Your task to perform on an android device: Search for Mexican restaurants on Maps Image 0: 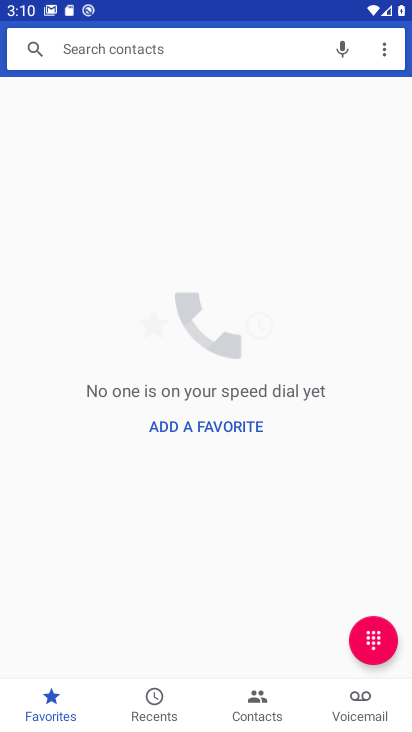
Step 0: press home button
Your task to perform on an android device: Search for Mexican restaurants on Maps Image 1: 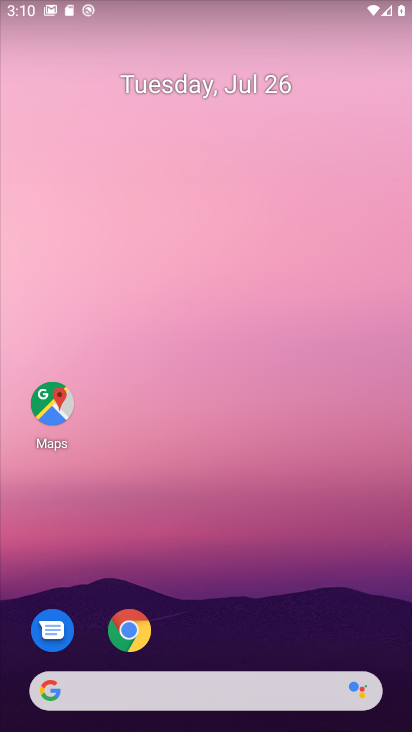
Step 1: click (123, 632)
Your task to perform on an android device: Search for Mexican restaurants on Maps Image 2: 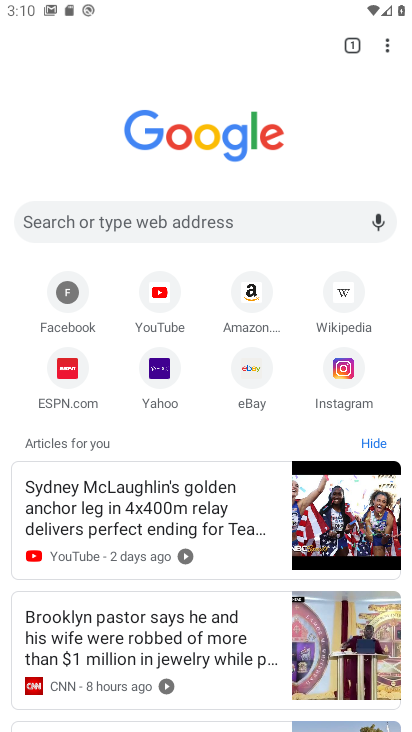
Step 2: press home button
Your task to perform on an android device: Search for Mexican restaurants on Maps Image 3: 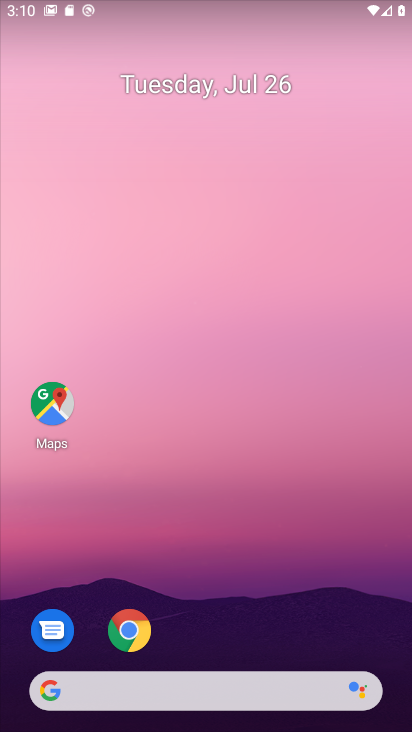
Step 3: click (55, 402)
Your task to perform on an android device: Search for Mexican restaurants on Maps Image 4: 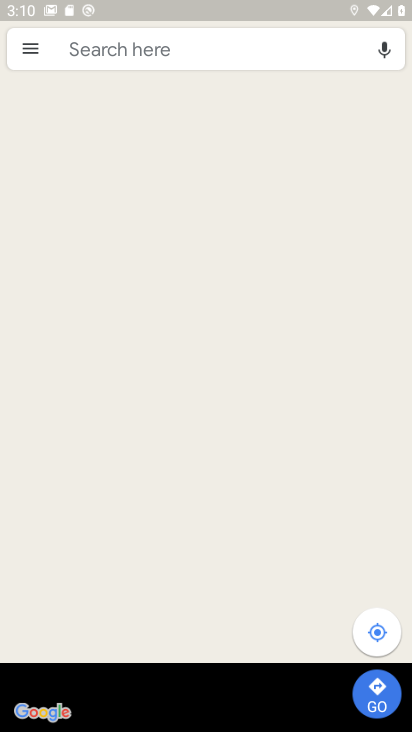
Step 4: click (190, 39)
Your task to perform on an android device: Search for Mexican restaurants on Maps Image 5: 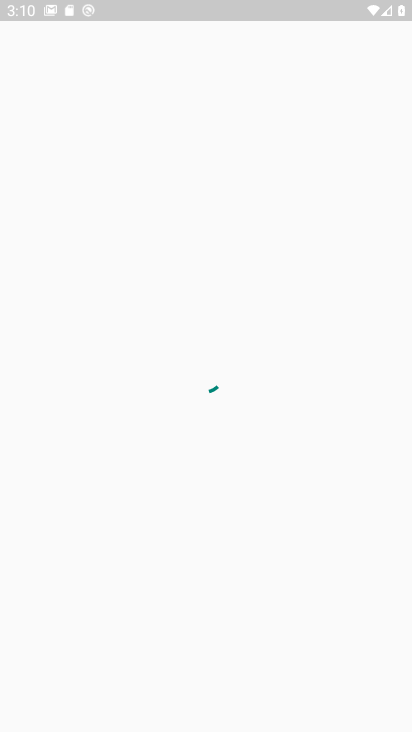
Step 5: type "mexican restaurant"
Your task to perform on an android device: Search for Mexican restaurants on Maps Image 6: 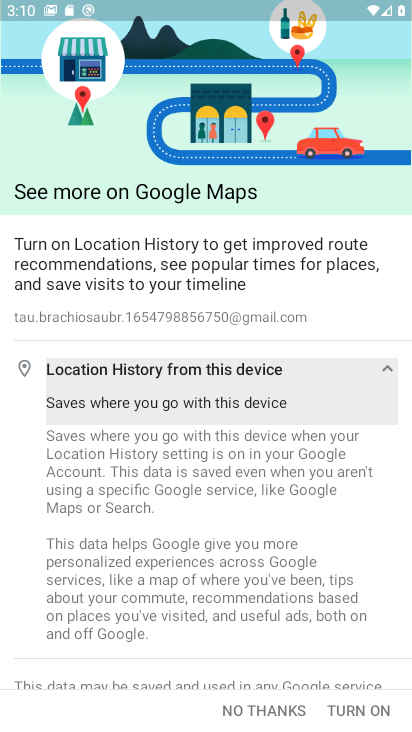
Step 6: click (381, 716)
Your task to perform on an android device: Search for Mexican restaurants on Maps Image 7: 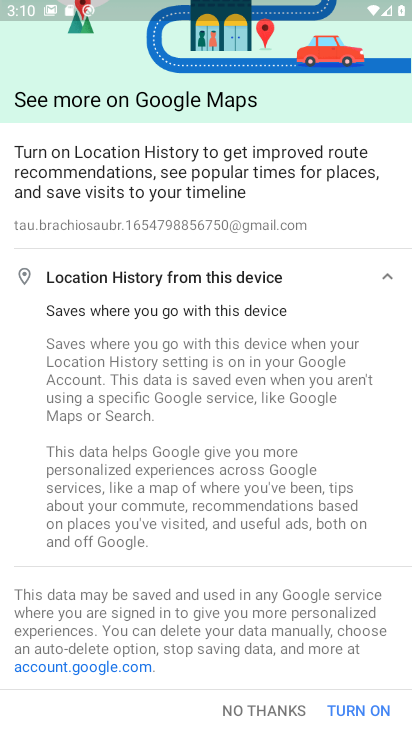
Step 7: click (353, 716)
Your task to perform on an android device: Search for Mexican restaurants on Maps Image 8: 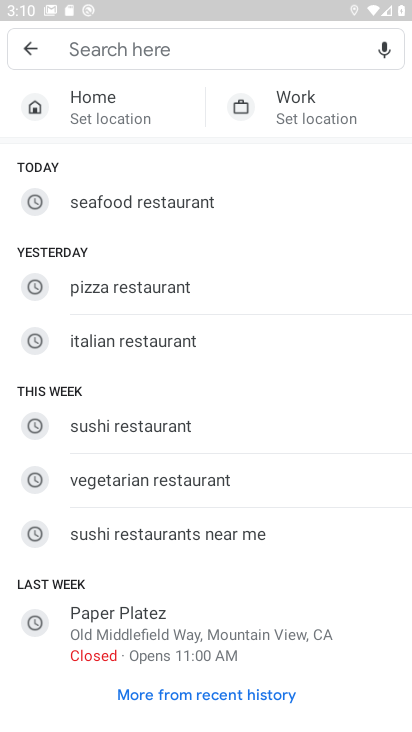
Step 8: click (102, 42)
Your task to perform on an android device: Search for Mexican restaurants on Maps Image 9: 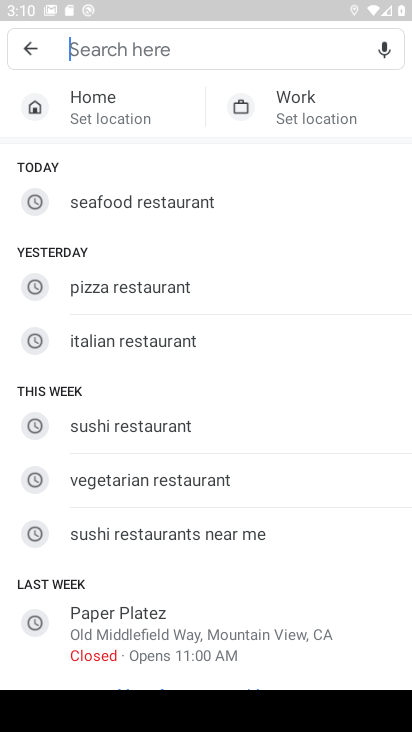
Step 9: type "mexican restaurant"
Your task to perform on an android device: Search for Mexican restaurants on Maps Image 10: 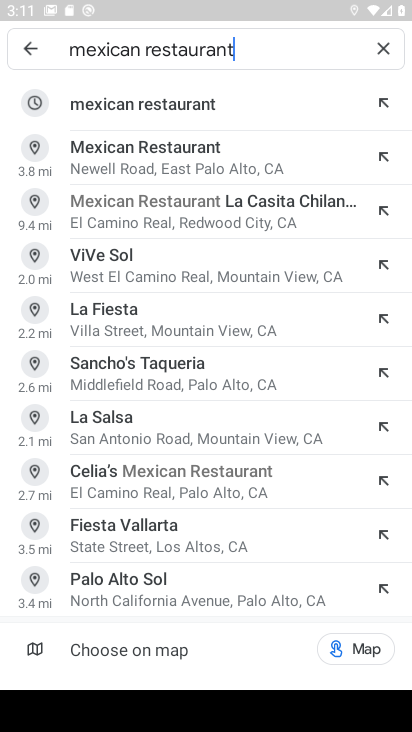
Step 10: click (177, 113)
Your task to perform on an android device: Search for Mexican restaurants on Maps Image 11: 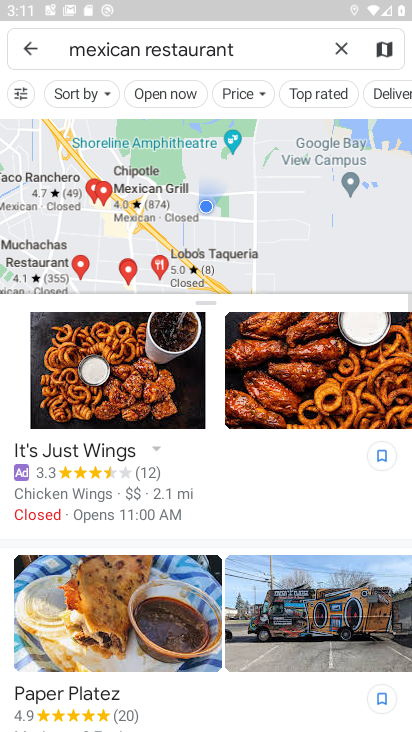
Step 11: task complete